Your task to perform on an android device: change timer sound Image 0: 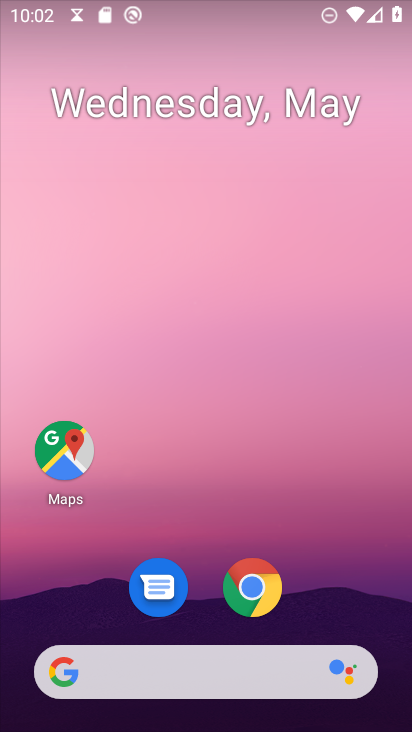
Step 0: drag from (216, 725) to (211, 130)
Your task to perform on an android device: change timer sound Image 1: 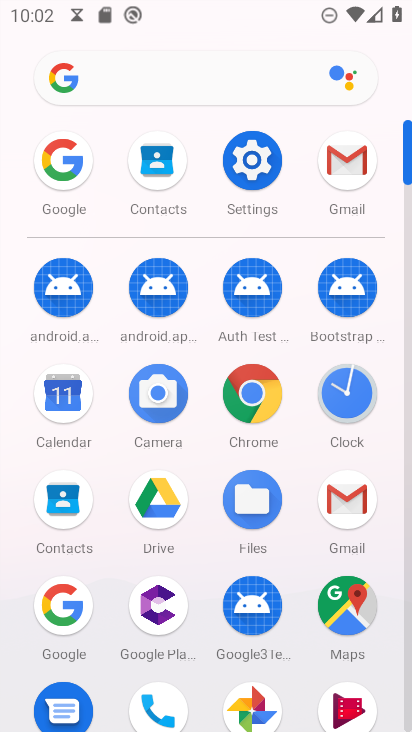
Step 1: click (351, 395)
Your task to perform on an android device: change timer sound Image 2: 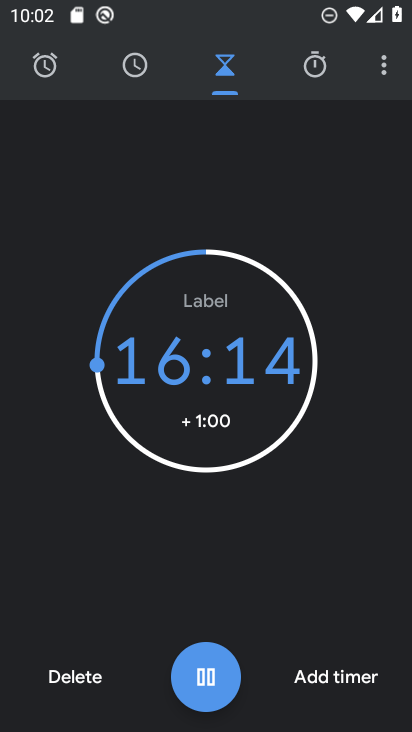
Step 2: click (385, 74)
Your task to perform on an android device: change timer sound Image 3: 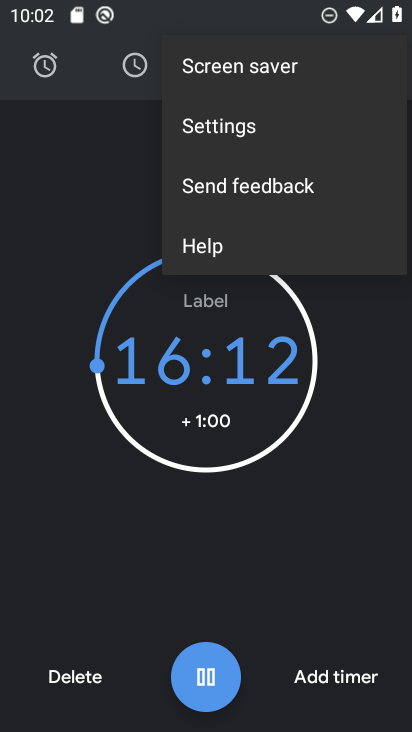
Step 3: click (231, 116)
Your task to perform on an android device: change timer sound Image 4: 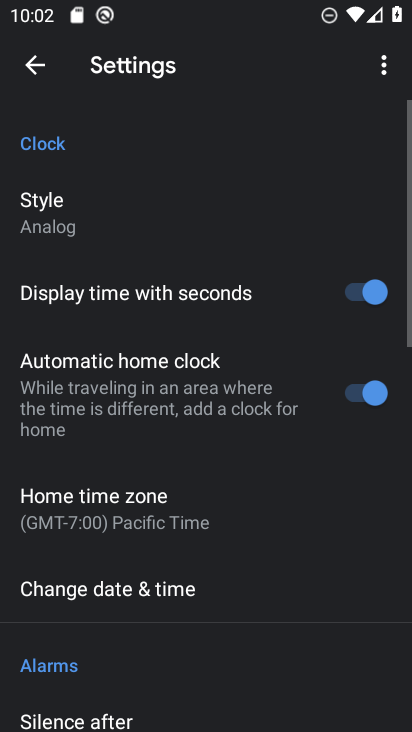
Step 4: drag from (123, 644) to (157, 274)
Your task to perform on an android device: change timer sound Image 5: 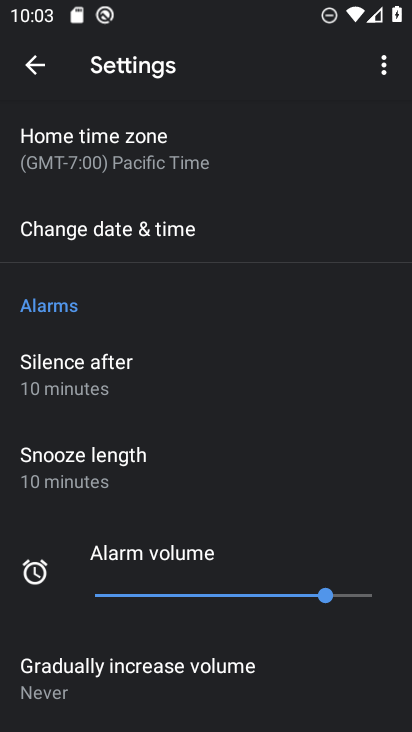
Step 5: drag from (103, 676) to (139, 252)
Your task to perform on an android device: change timer sound Image 6: 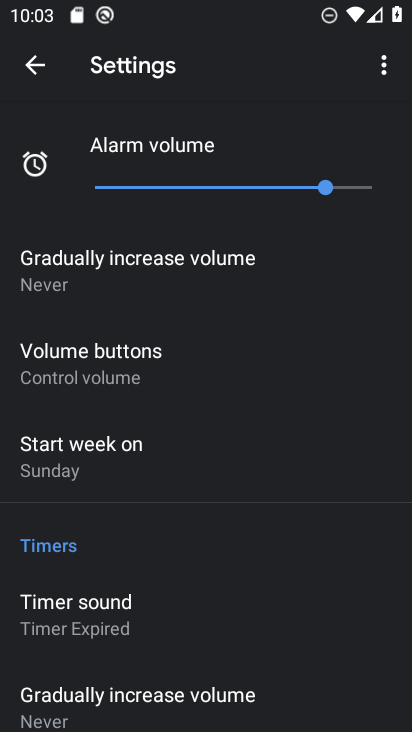
Step 6: click (71, 615)
Your task to perform on an android device: change timer sound Image 7: 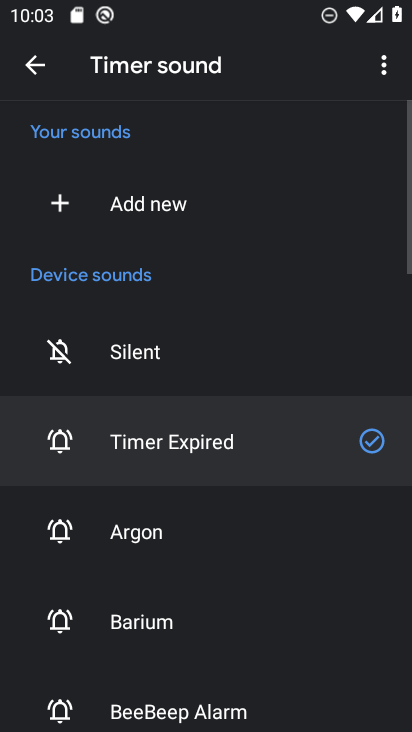
Step 7: click (52, 616)
Your task to perform on an android device: change timer sound Image 8: 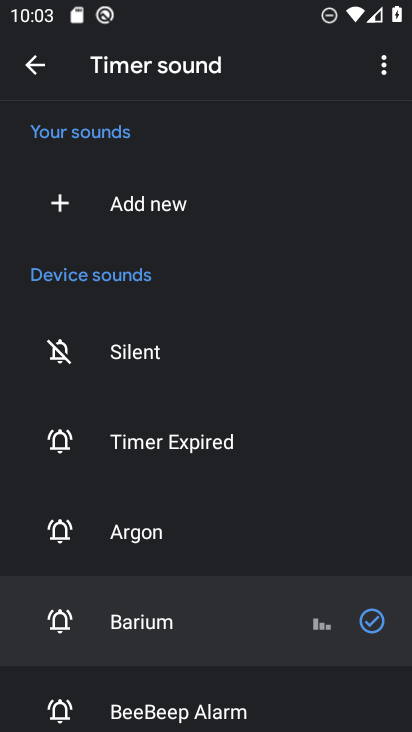
Step 8: task complete